Your task to perform on an android device: Go to wifi settings Image 0: 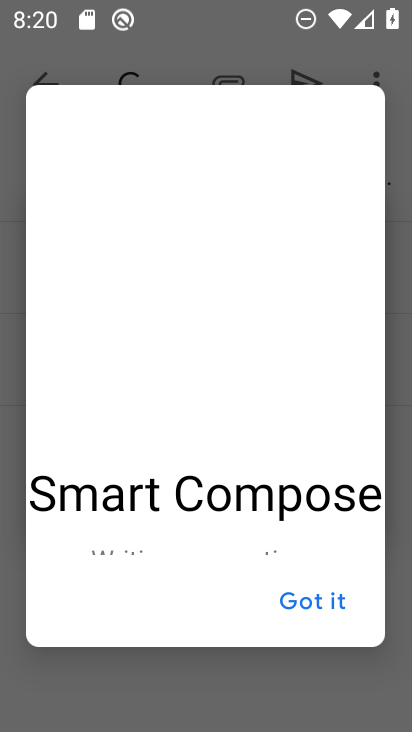
Step 0: press back button
Your task to perform on an android device: Go to wifi settings Image 1: 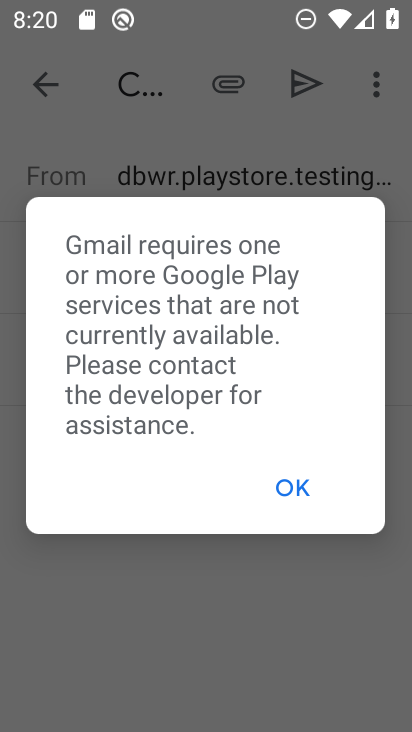
Step 1: press back button
Your task to perform on an android device: Go to wifi settings Image 2: 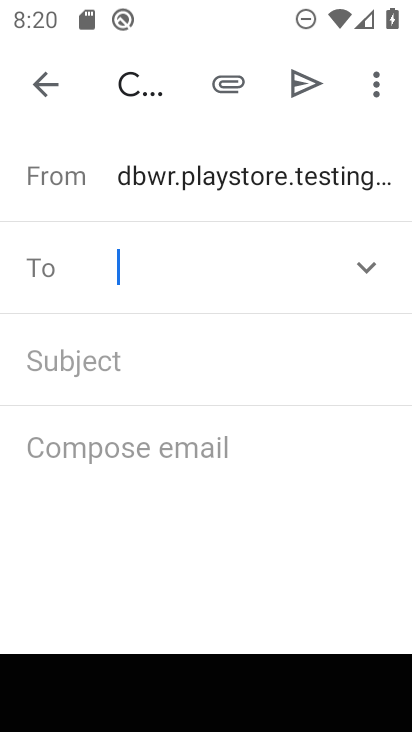
Step 2: press home button
Your task to perform on an android device: Go to wifi settings Image 3: 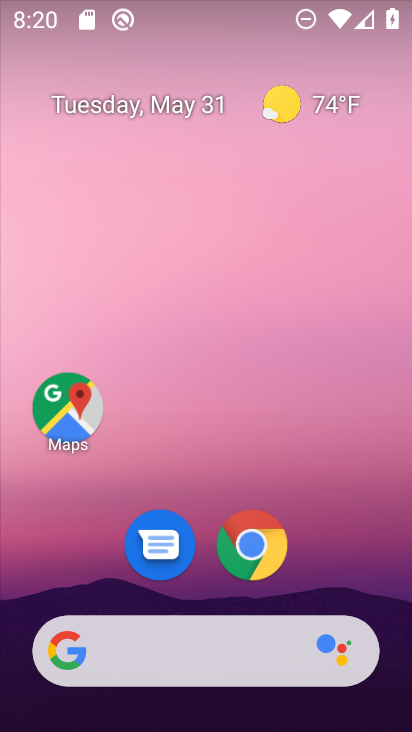
Step 3: drag from (364, 546) to (267, 0)
Your task to perform on an android device: Go to wifi settings Image 4: 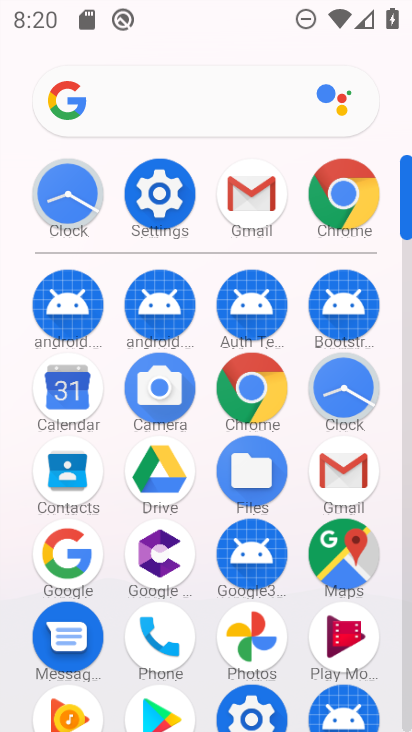
Step 4: click (155, 192)
Your task to perform on an android device: Go to wifi settings Image 5: 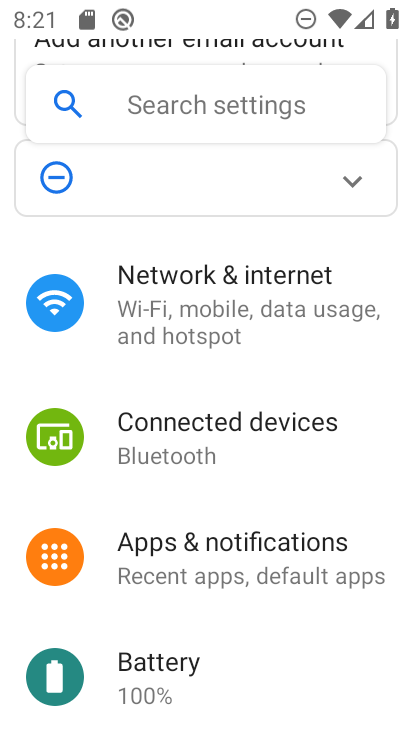
Step 5: click (251, 315)
Your task to perform on an android device: Go to wifi settings Image 6: 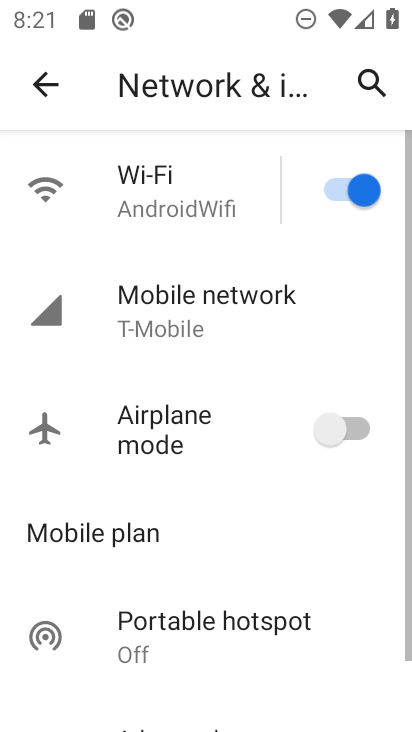
Step 6: click (161, 172)
Your task to perform on an android device: Go to wifi settings Image 7: 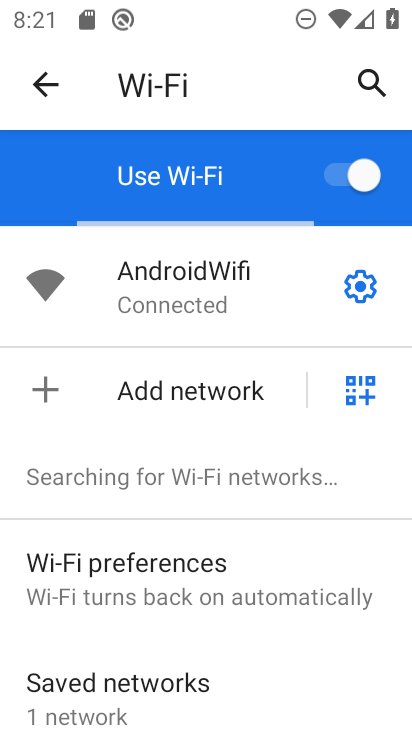
Step 7: task complete